Your task to perform on an android device: Go to calendar. Show me events next week Image 0: 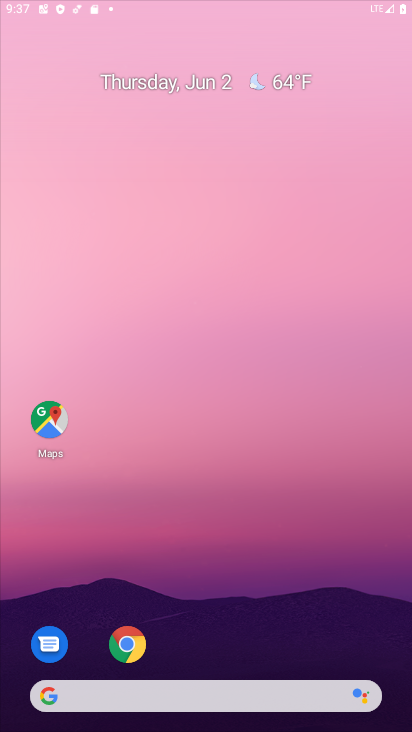
Step 0: press home button
Your task to perform on an android device: Go to calendar. Show me events next week Image 1: 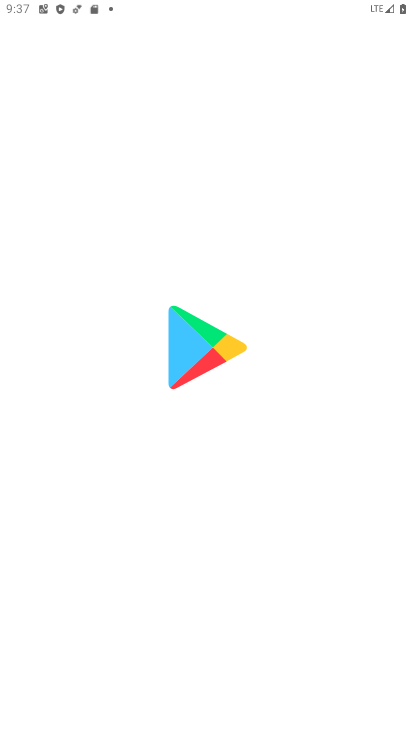
Step 1: drag from (278, 639) to (234, 25)
Your task to perform on an android device: Go to calendar. Show me events next week Image 2: 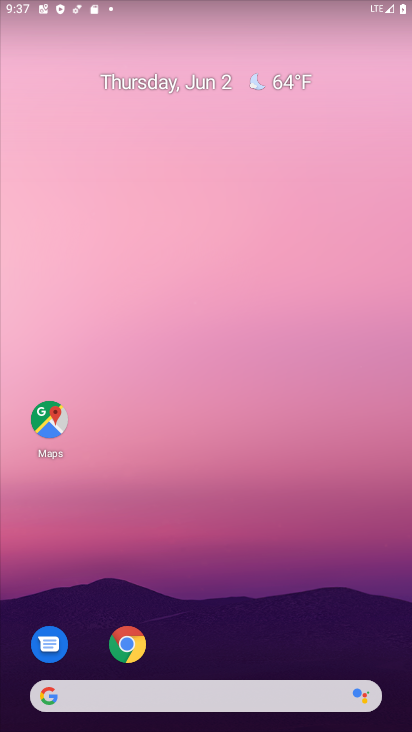
Step 2: drag from (342, 625) to (396, 101)
Your task to perform on an android device: Go to calendar. Show me events next week Image 3: 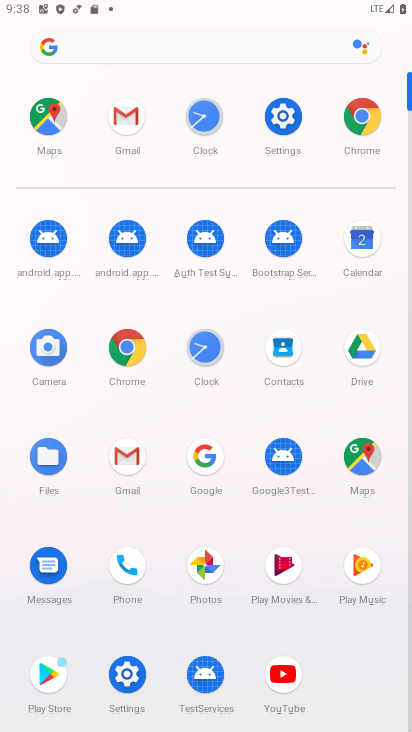
Step 3: click (354, 288)
Your task to perform on an android device: Go to calendar. Show me events next week Image 4: 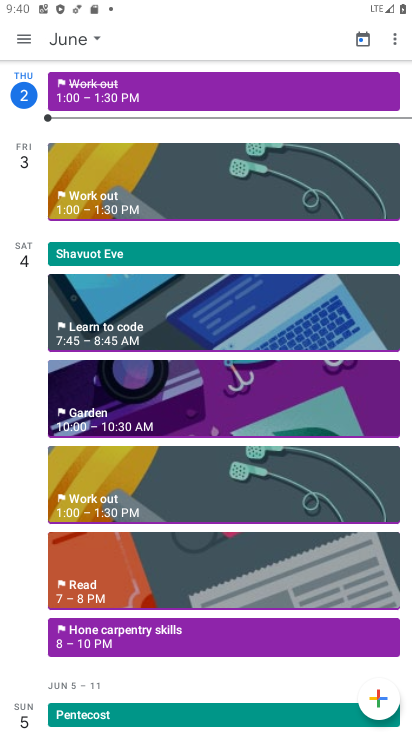
Step 4: click (91, 40)
Your task to perform on an android device: Go to calendar. Show me events next week Image 5: 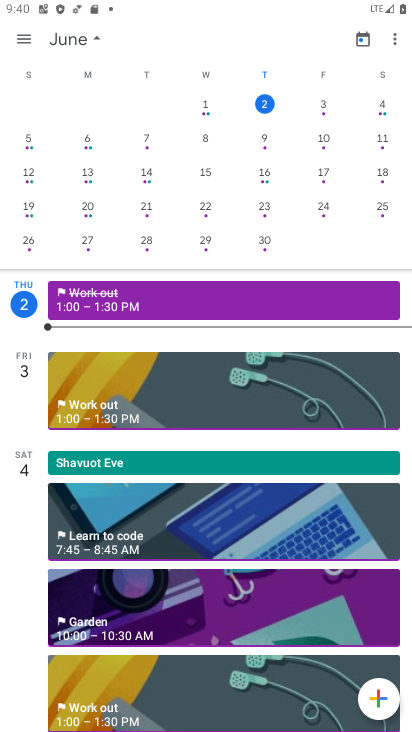
Step 5: click (90, 132)
Your task to perform on an android device: Go to calendar. Show me events next week Image 6: 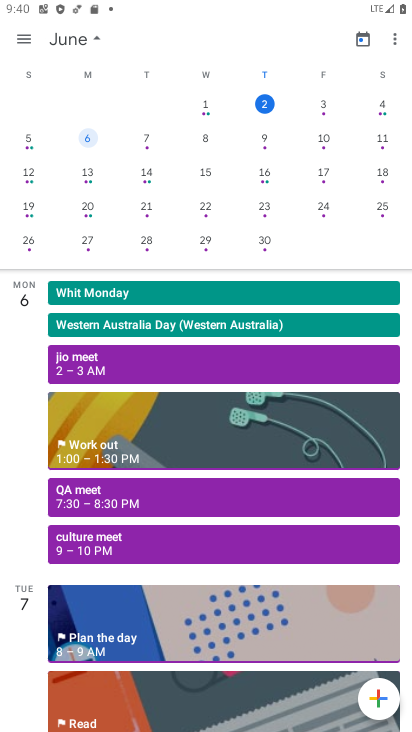
Step 6: click (102, 41)
Your task to perform on an android device: Go to calendar. Show me events next week Image 7: 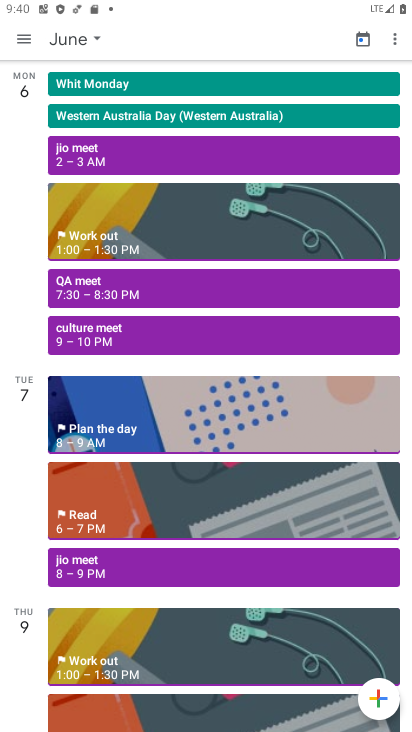
Step 7: task complete